Your task to perform on an android device: turn on javascript in the chrome app Image 0: 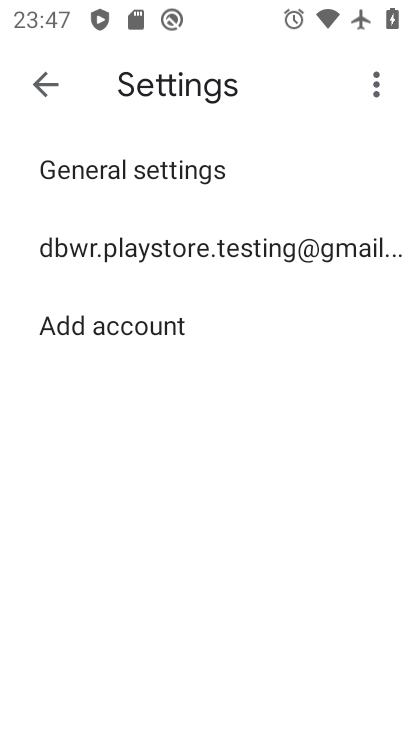
Step 0: press home button
Your task to perform on an android device: turn on javascript in the chrome app Image 1: 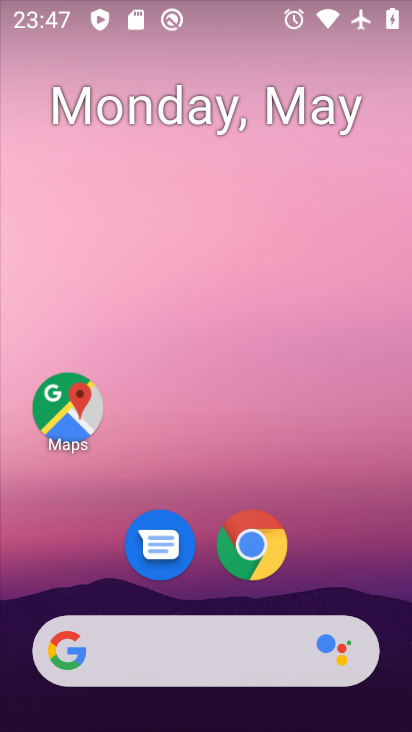
Step 1: click (260, 540)
Your task to perform on an android device: turn on javascript in the chrome app Image 2: 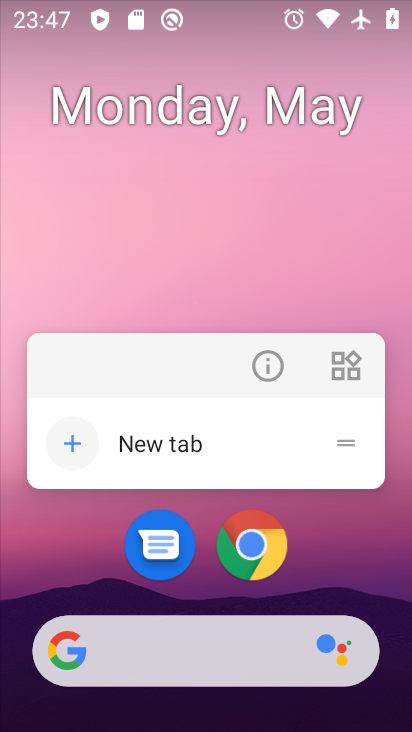
Step 2: click (260, 540)
Your task to perform on an android device: turn on javascript in the chrome app Image 3: 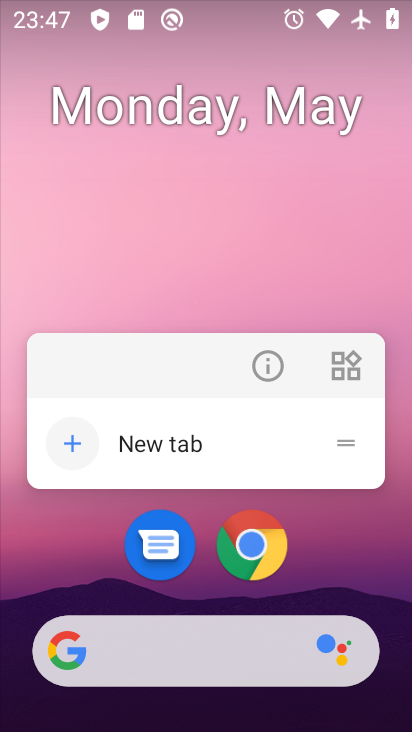
Step 3: click (254, 539)
Your task to perform on an android device: turn on javascript in the chrome app Image 4: 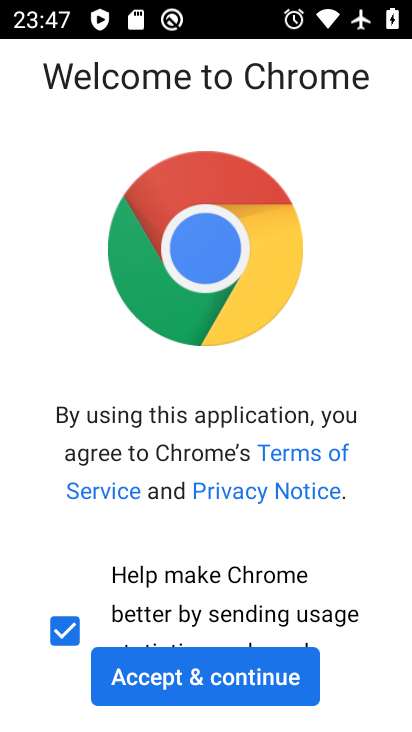
Step 4: click (269, 670)
Your task to perform on an android device: turn on javascript in the chrome app Image 5: 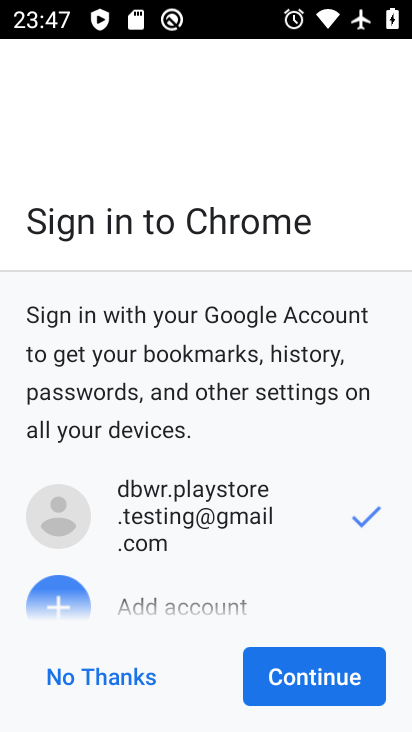
Step 5: click (276, 669)
Your task to perform on an android device: turn on javascript in the chrome app Image 6: 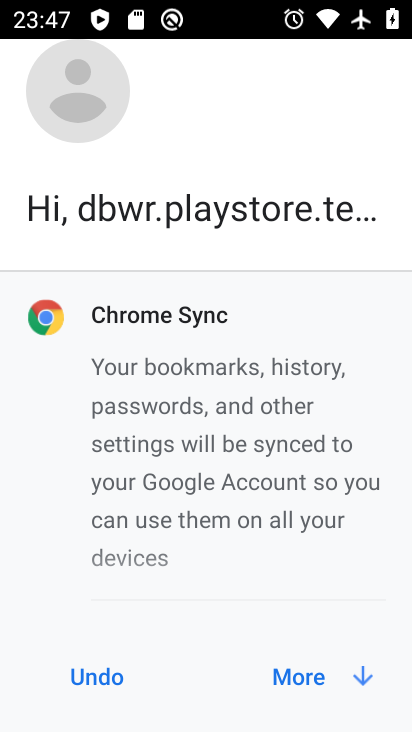
Step 6: click (276, 669)
Your task to perform on an android device: turn on javascript in the chrome app Image 7: 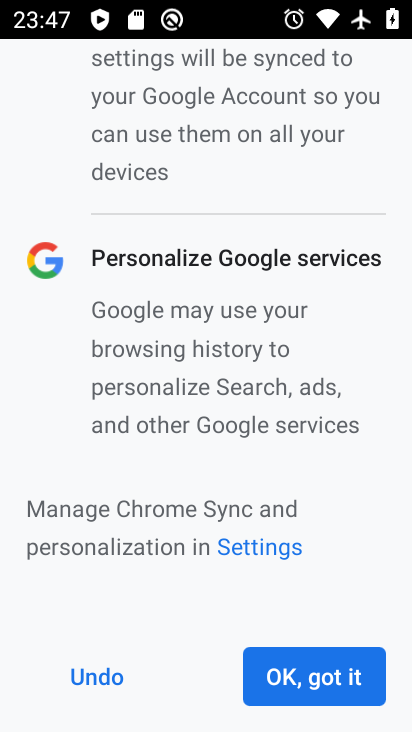
Step 7: click (278, 668)
Your task to perform on an android device: turn on javascript in the chrome app Image 8: 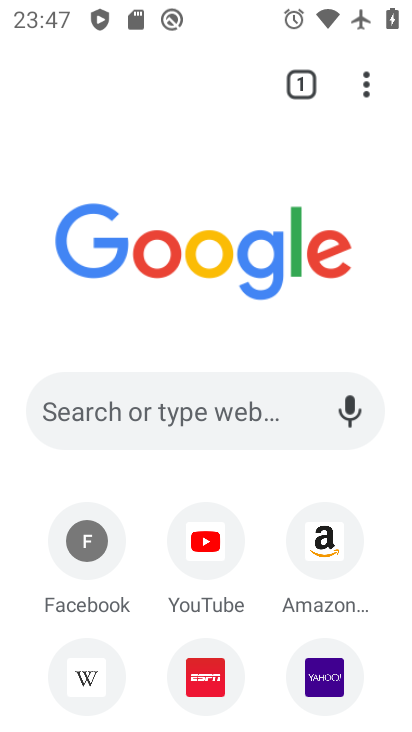
Step 8: click (372, 76)
Your task to perform on an android device: turn on javascript in the chrome app Image 9: 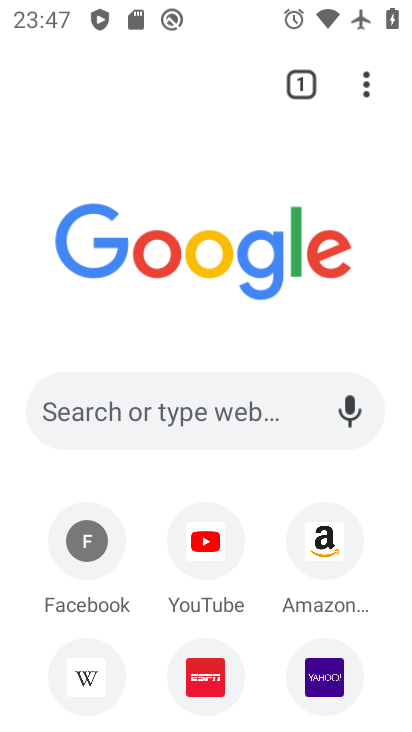
Step 9: click (360, 92)
Your task to perform on an android device: turn on javascript in the chrome app Image 10: 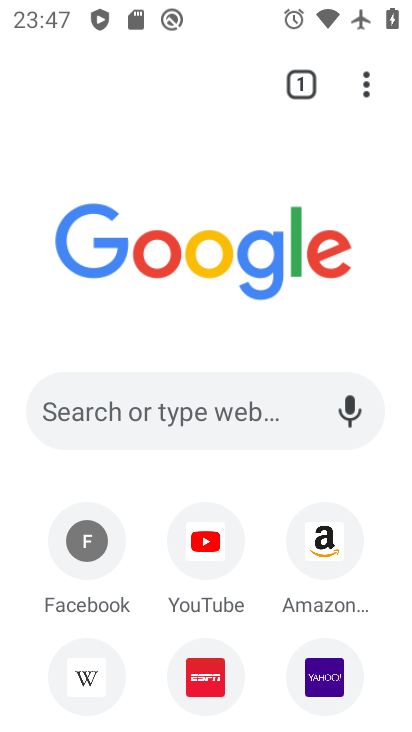
Step 10: click (360, 92)
Your task to perform on an android device: turn on javascript in the chrome app Image 11: 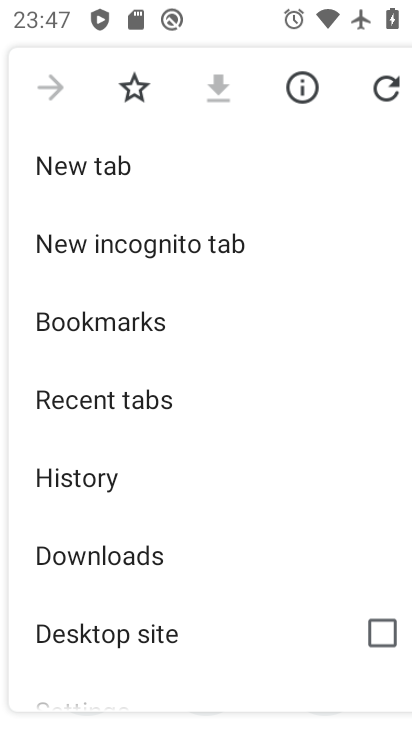
Step 11: drag from (147, 629) to (137, 184)
Your task to perform on an android device: turn on javascript in the chrome app Image 12: 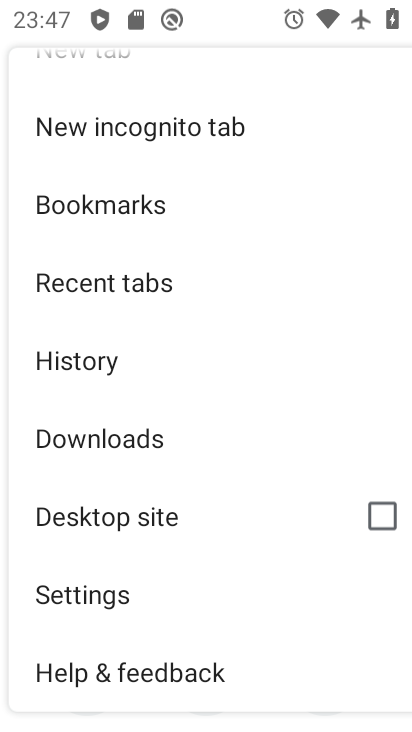
Step 12: click (128, 593)
Your task to perform on an android device: turn on javascript in the chrome app Image 13: 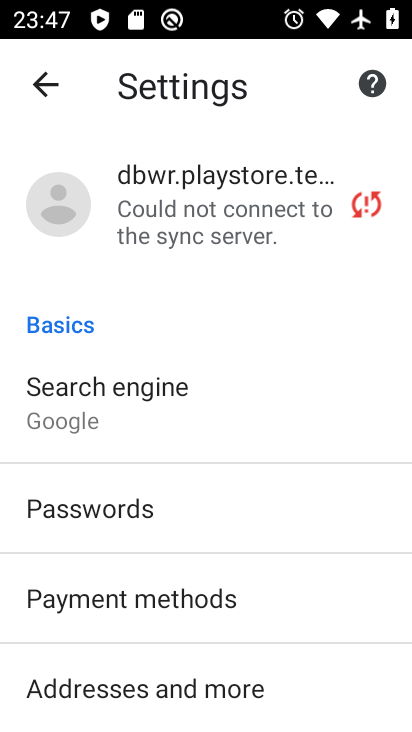
Step 13: drag from (149, 640) to (209, 380)
Your task to perform on an android device: turn on javascript in the chrome app Image 14: 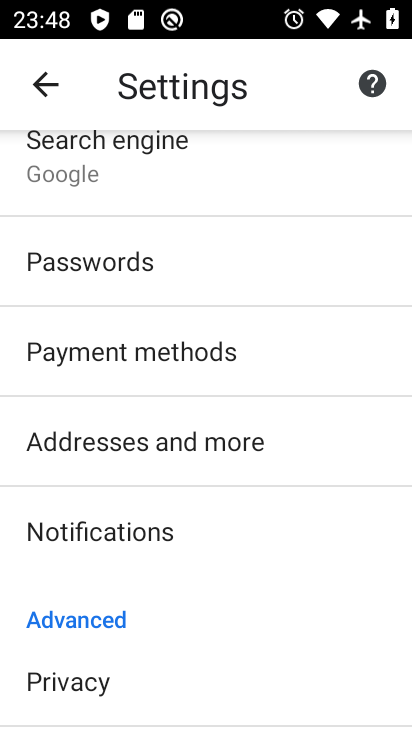
Step 14: drag from (151, 617) to (179, 420)
Your task to perform on an android device: turn on javascript in the chrome app Image 15: 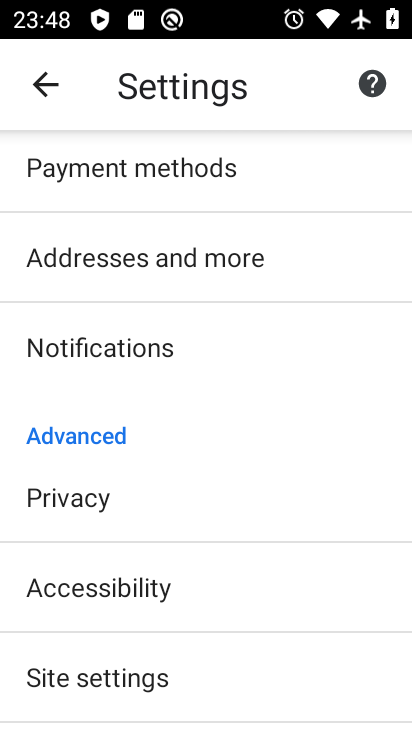
Step 15: click (209, 685)
Your task to perform on an android device: turn on javascript in the chrome app Image 16: 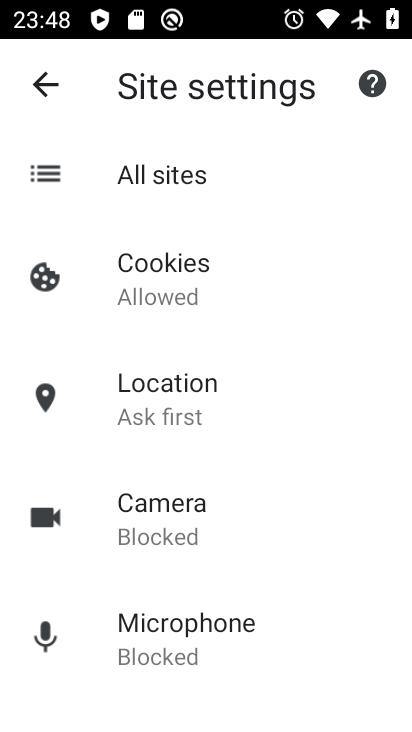
Step 16: drag from (148, 654) to (170, 509)
Your task to perform on an android device: turn on javascript in the chrome app Image 17: 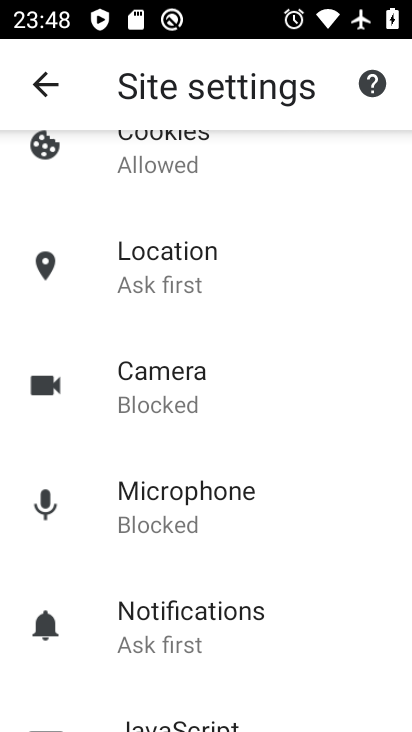
Step 17: drag from (187, 629) to (202, 531)
Your task to perform on an android device: turn on javascript in the chrome app Image 18: 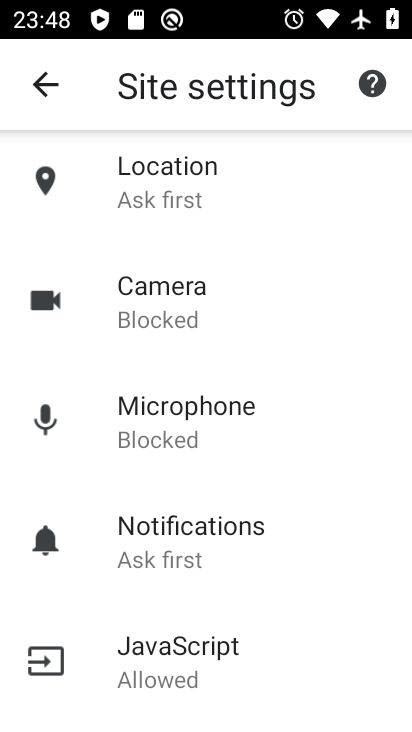
Step 18: click (221, 657)
Your task to perform on an android device: turn on javascript in the chrome app Image 19: 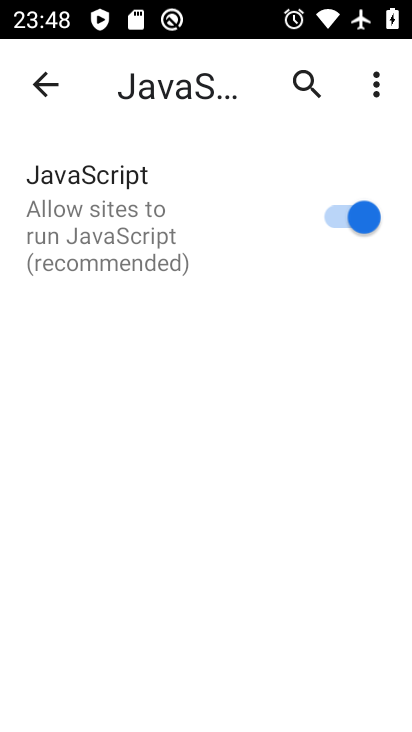
Step 19: task complete